Your task to perform on an android device: add a contact in the contacts app Image 0: 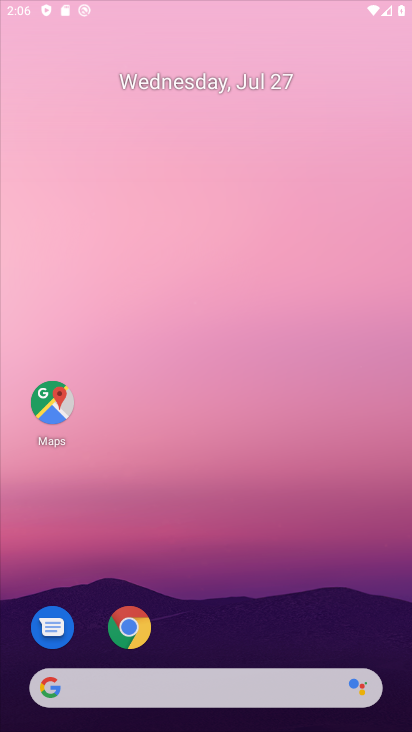
Step 0: click (118, 49)
Your task to perform on an android device: add a contact in the contacts app Image 1: 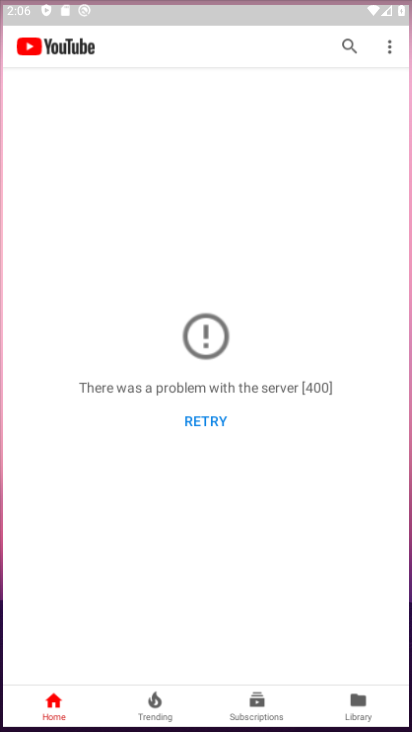
Step 1: drag from (103, 626) to (14, 178)
Your task to perform on an android device: add a contact in the contacts app Image 2: 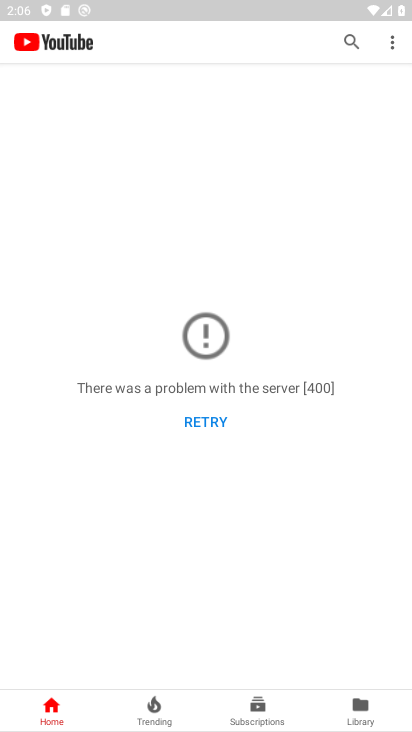
Step 2: press back button
Your task to perform on an android device: add a contact in the contacts app Image 3: 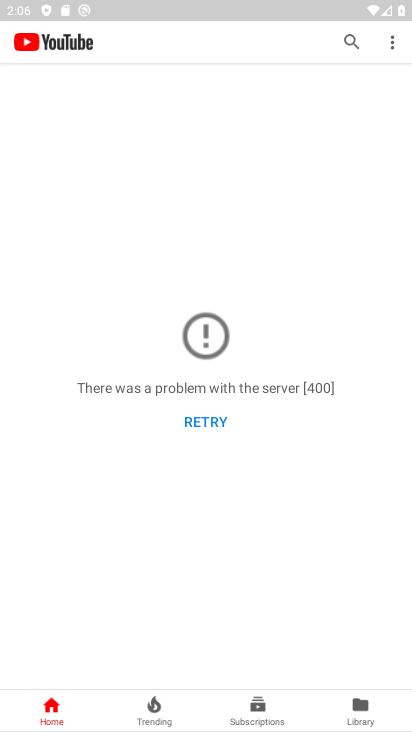
Step 3: press back button
Your task to perform on an android device: add a contact in the contacts app Image 4: 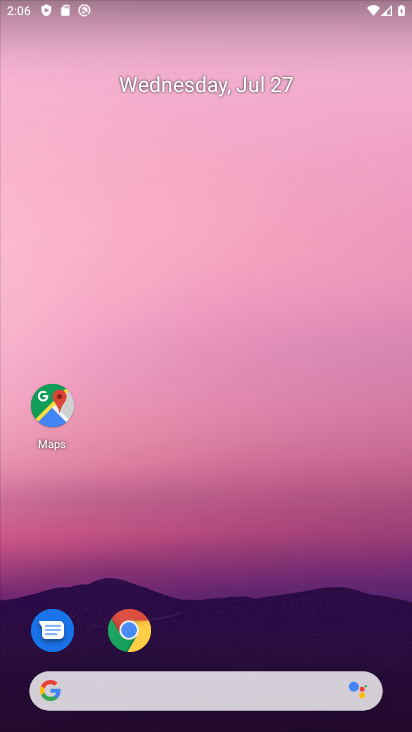
Step 4: drag from (236, 515) to (194, 71)
Your task to perform on an android device: add a contact in the contacts app Image 5: 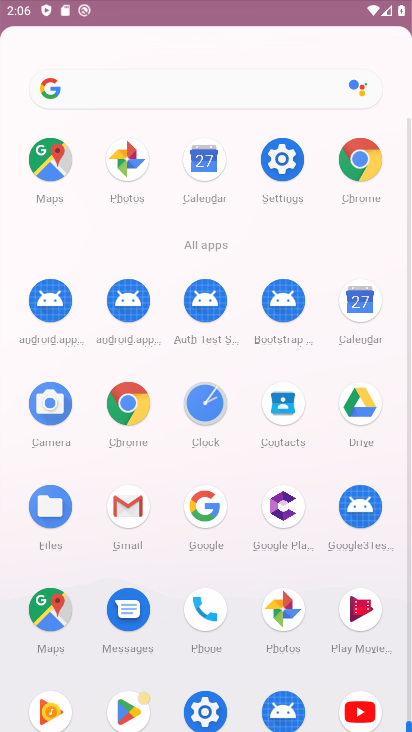
Step 5: drag from (277, 532) to (193, 15)
Your task to perform on an android device: add a contact in the contacts app Image 6: 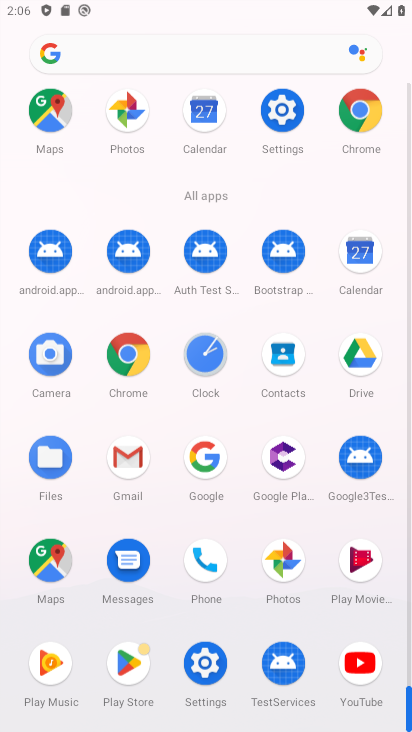
Step 6: drag from (261, 544) to (198, 157)
Your task to perform on an android device: add a contact in the contacts app Image 7: 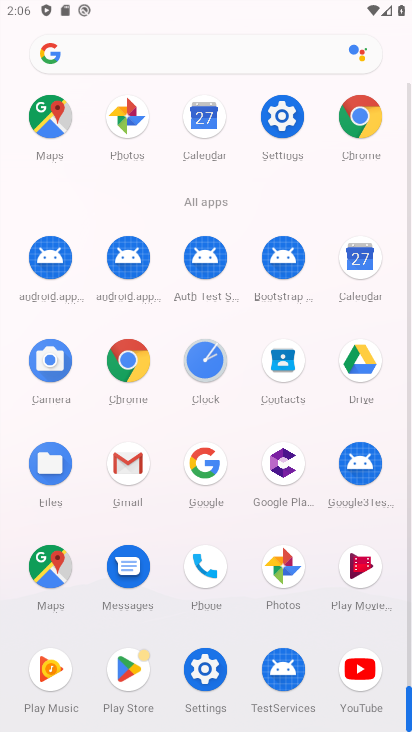
Step 7: click (291, 368)
Your task to perform on an android device: add a contact in the contacts app Image 8: 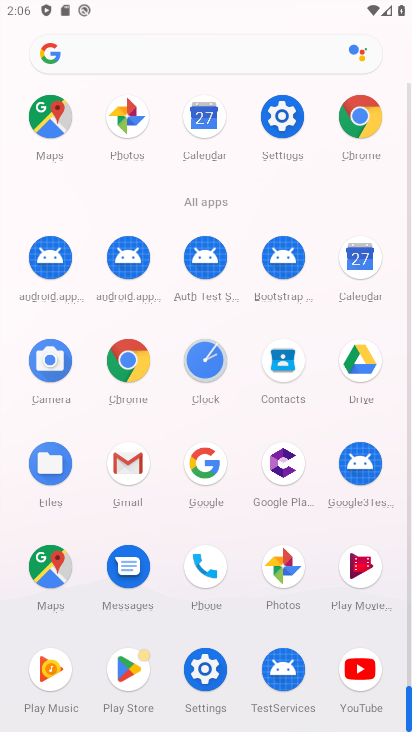
Step 8: click (291, 368)
Your task to perform on an android device: add a contact in the contacts app Image 9: 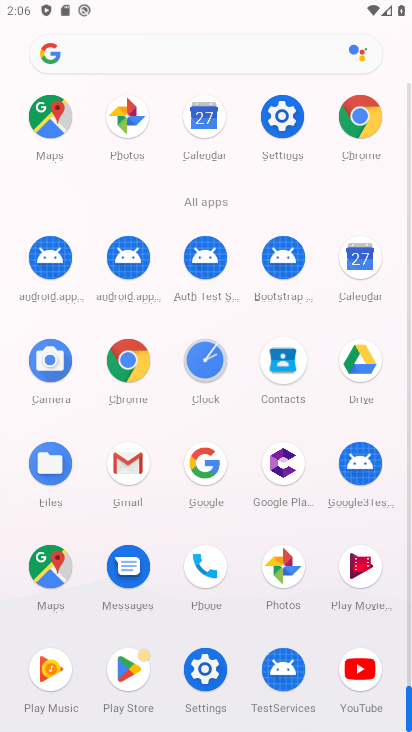
Step 9: click (291, 368)
Your task to perform on an android device: add a contact in the contacts app Image 10: 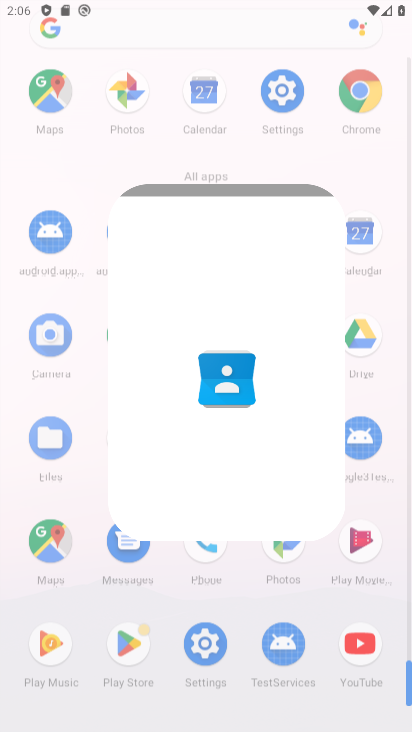
Step 10: click (290, 367)
Your task to perform on an android device: add a contact in the contacts app Image 11: 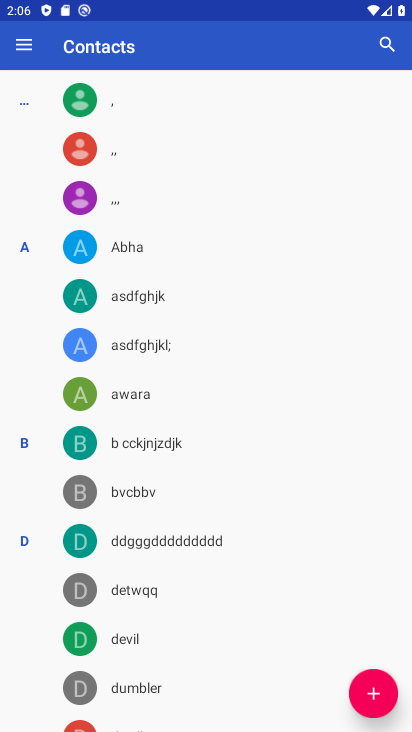
Step 11: click (369, 699)
Your task to perform on an android device: add a contact in the contacts app Image 12: 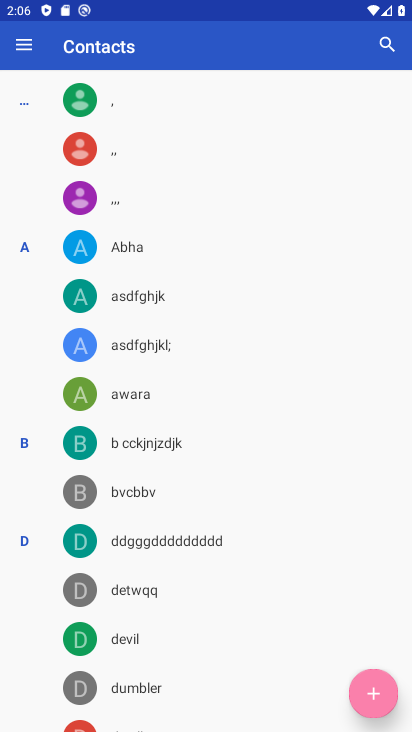
Step 12: click (368, 696)
Your task to perform on an android device: add a contact in the contacts app Image 13: 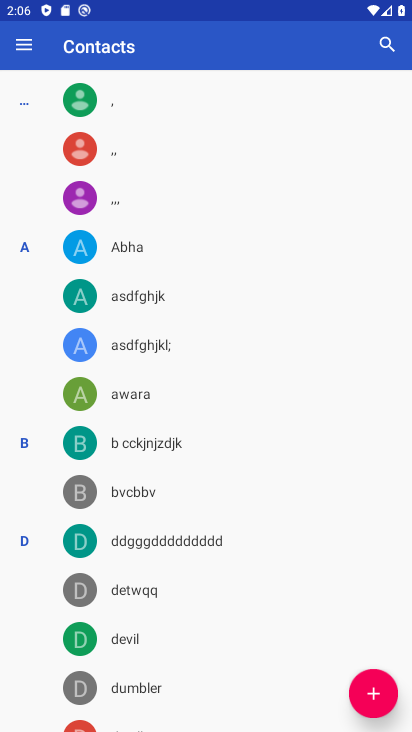
Step 13: click (368, 696)
Your task to perform on an android device: add a contact in the contacts app Image 14: 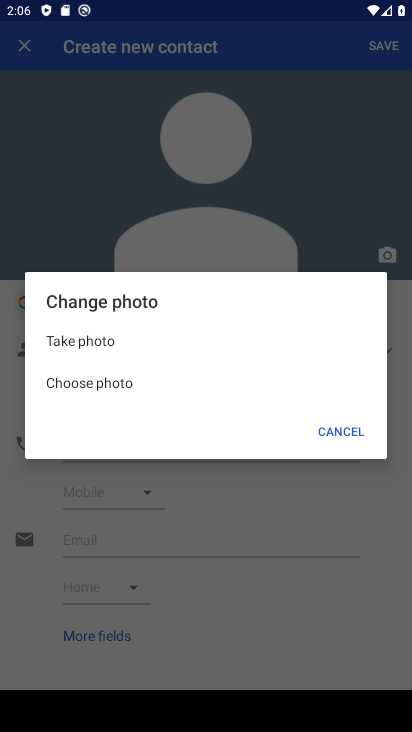
Step 14: click (330, 423)
Your task to perform on an android device: add a contact in the contacts app Image 15: 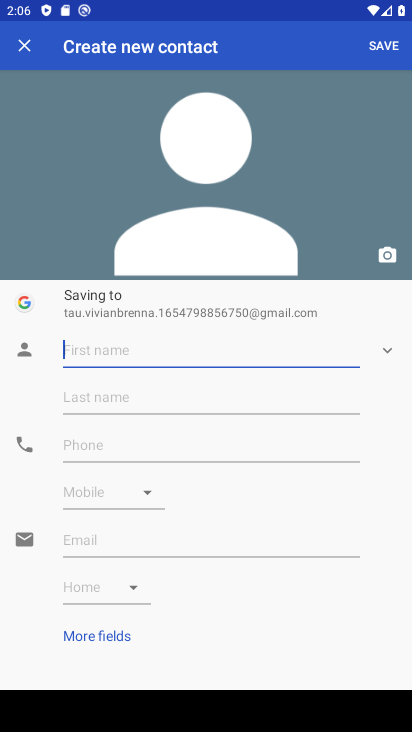
Step 15: type "cvnhvhmb"
Your task to perform on an android device: add a contact in the contacts app Image 16: 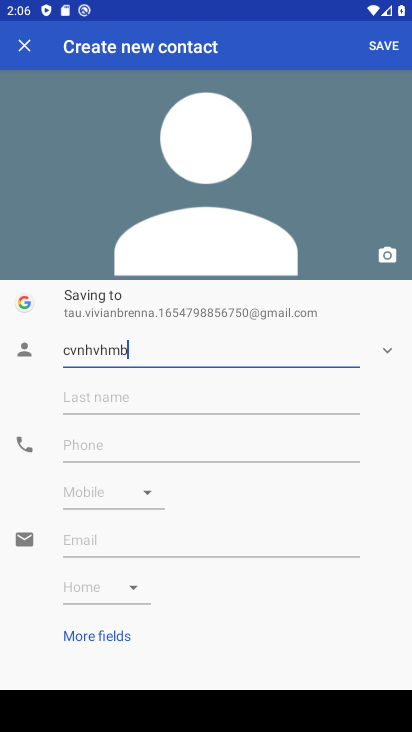
Step 16: click (66, 442)
Your task to perform on an android device: add a contact in the contacts app Image 17: 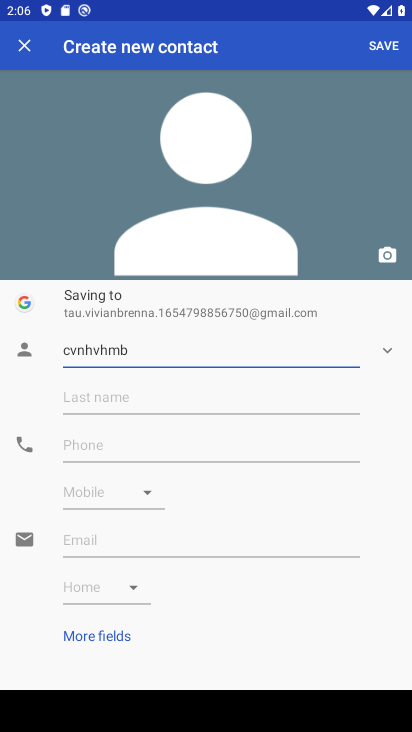
Step 17: click (66, 442)
Your task to perform on an android device: add a contact in the contacts app Image 18: 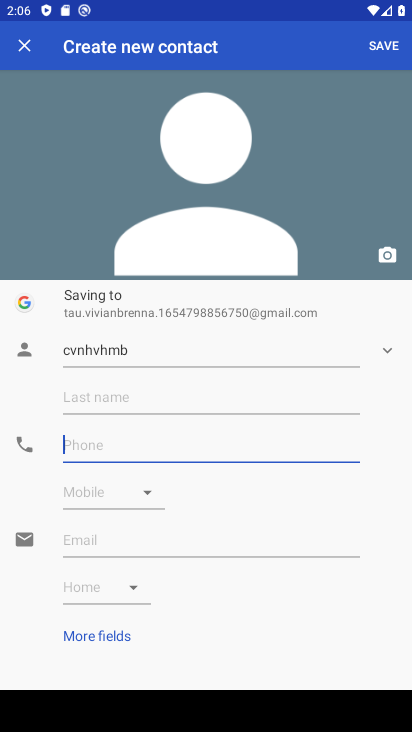
Step 18: type "68767868779879"
Your task to perform on an android device: add a contact in the contacts app Image 19: 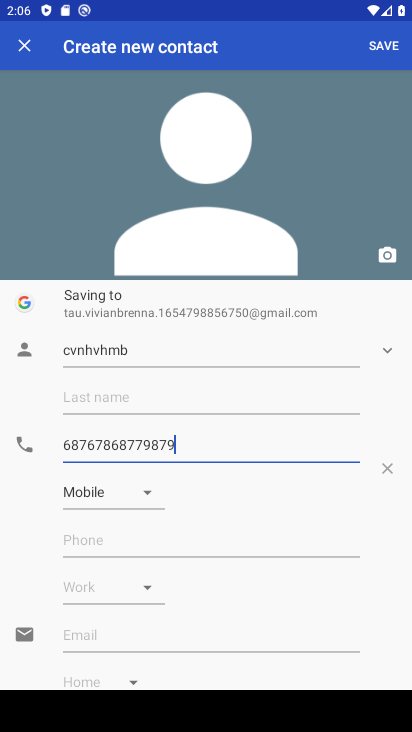
Step 19: click (392, 40)
Your task to perform on an android device: add a contact in the contacts app Image 20: 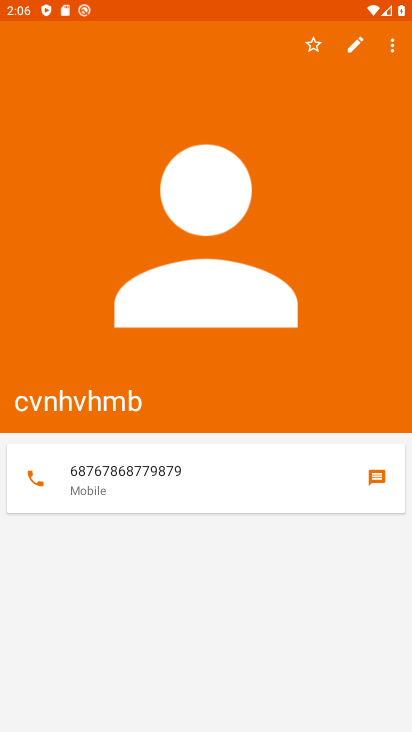
Step 20: task complete